Your task to perform on an android device: Open calendar and show me the third week of next month Image 0: 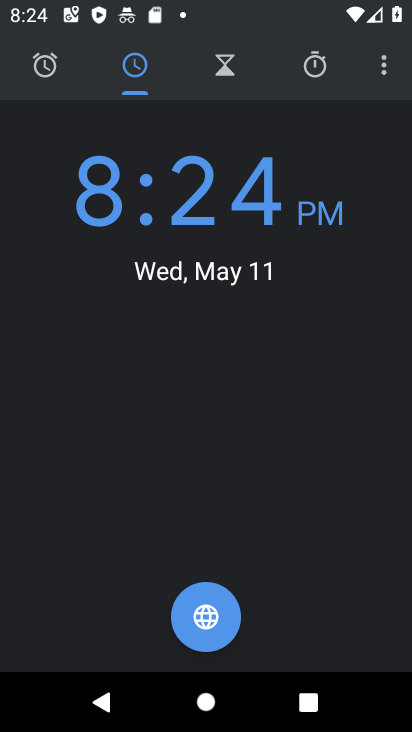
Step 0: press home button
Your task to perform on an android device: Open calendar and show me the third week of next month Image 1: 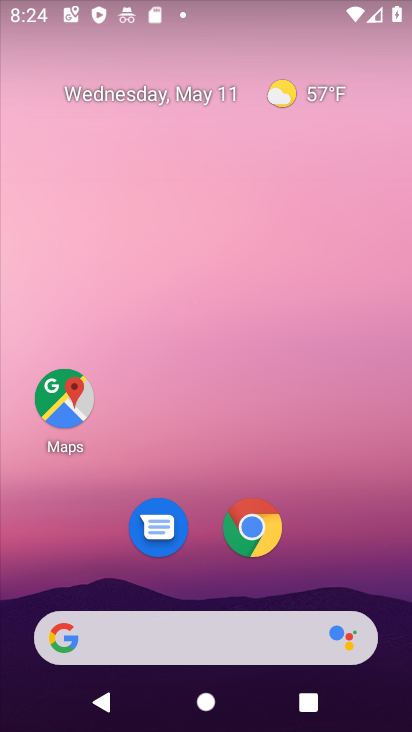
Step 1: drag from (363, 457) to (352, 0)
Your task to perform on an android device: Open calendar and show me the third week of next month Image 2: 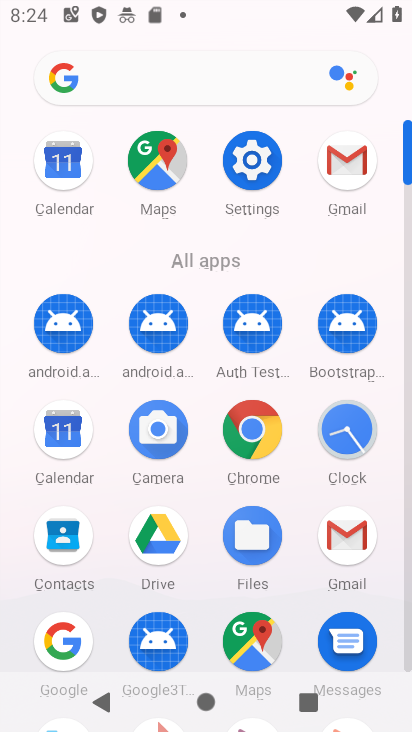
Step 2: click (51, 171)
Your task to perform on an android device: Open calendar and show me the third week of next month Image 3: 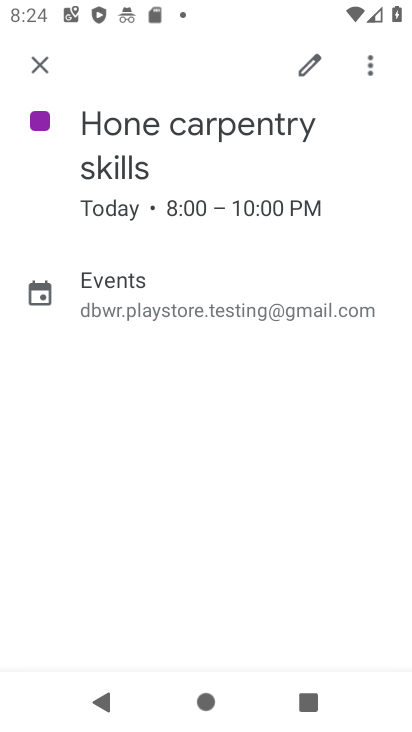
Step 3: click (36, 75)
Your task to perform on an android device: Open calendar and show me the third week of next month Image 4: 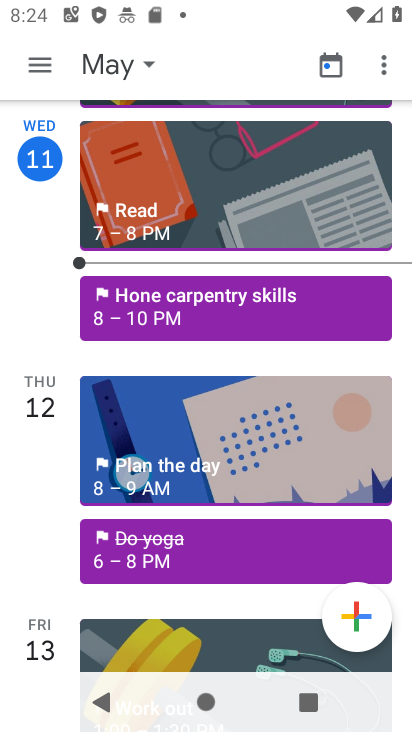
Step 4: click (145, 78)
Your task to perform on an android device: Open calendar and show me the third week of next month Image 5: 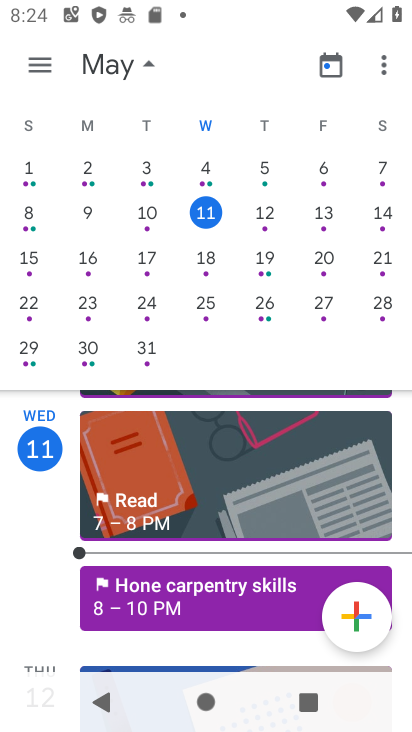
Step 5: drag from (361, 224) to (3, 402)
Your task to perform on an android device: Open calendar and show me the third week of next month Image 6: 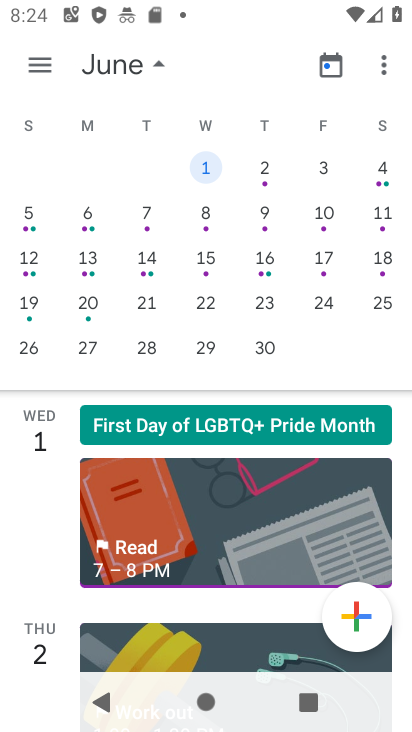
Step 6: click (24, 60)
Your task to perform on an android device: Open calendar and show me the third week of next month Image 7: 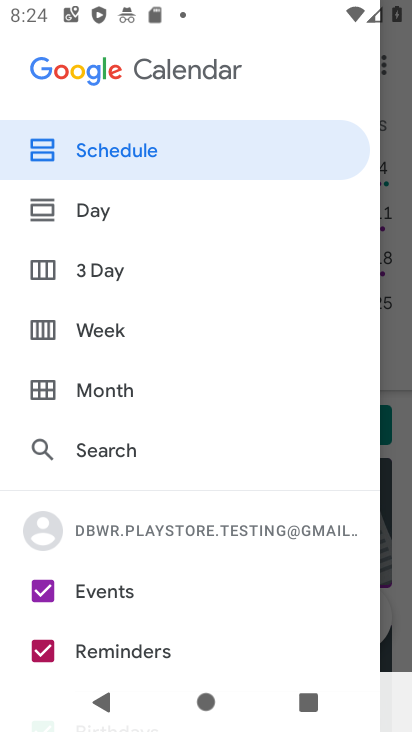
Step 7: click (99, 324)
Your task to perform on an android device: Open calendar and show me the third week of next month Image 8: 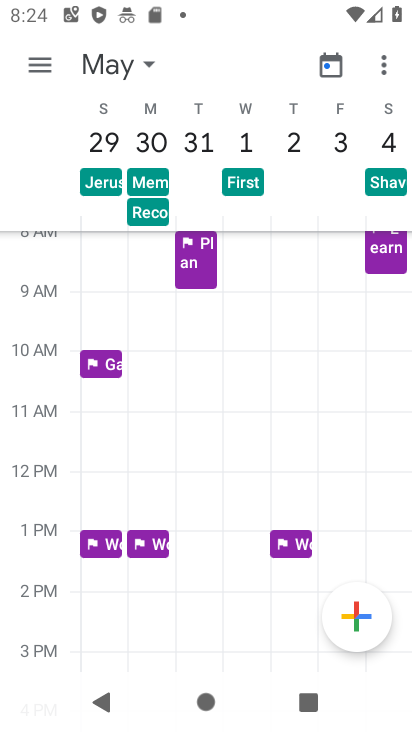
Step 8: task complete